Your task to perform on an android device: change the clock display to analog Image 0: 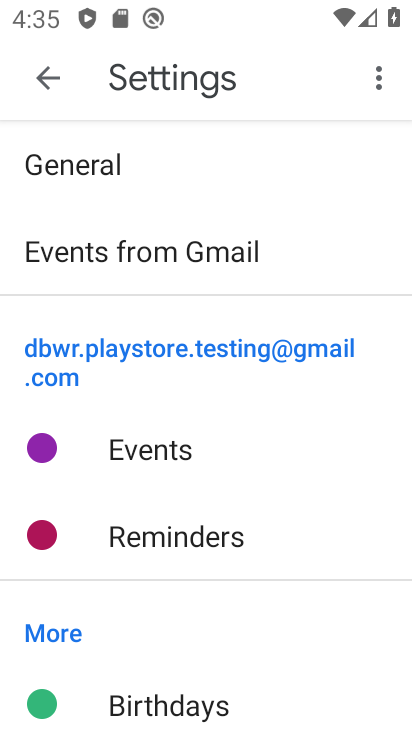
Step 0: press home button
Your task to perform on an android device: change the clock display to analog Image 1: 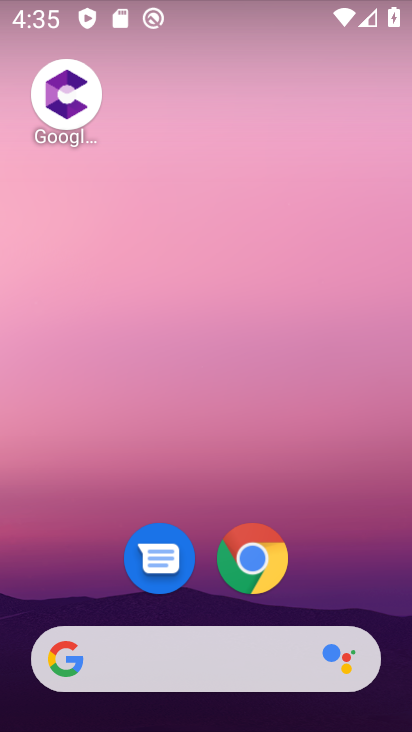
Step 1: drag from (402, 593) to (325, 81)
Your task to perform on an android device: change the clock display to analog Image 2: 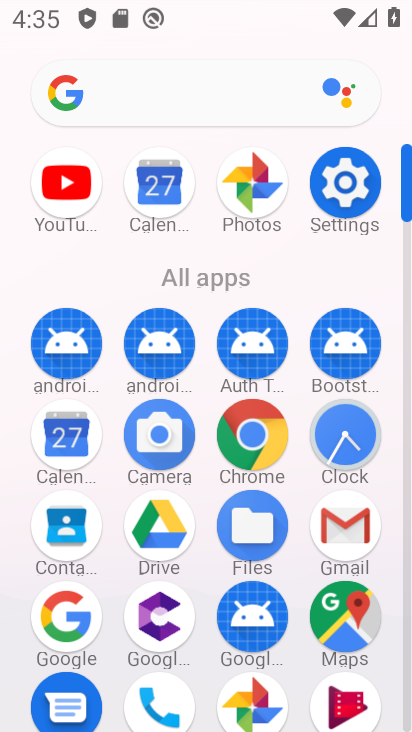
Step 2: click (354, 432)
Your task to perform on an android device: change the clock display to analog Image 3: 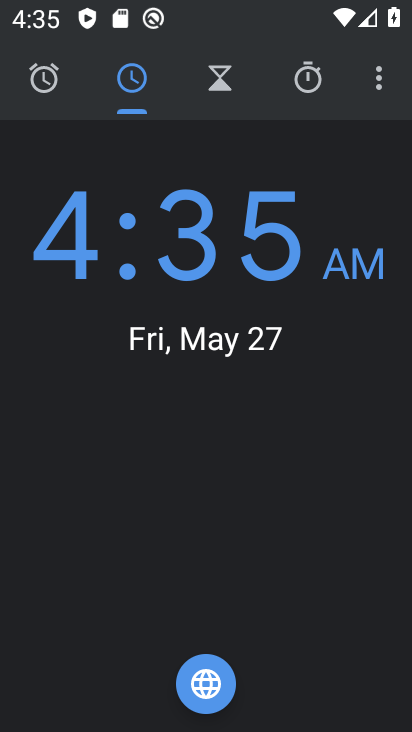
Step 3: click (382, 78)
Your task to perform on an android device: change the clock display to analog Image 4: 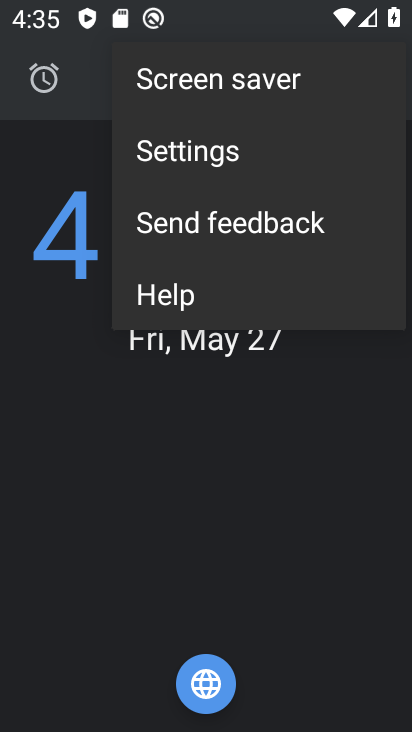
Step 4: click (318, 147)
Your task to perform on an android device: change the clock display to analog Image 5: 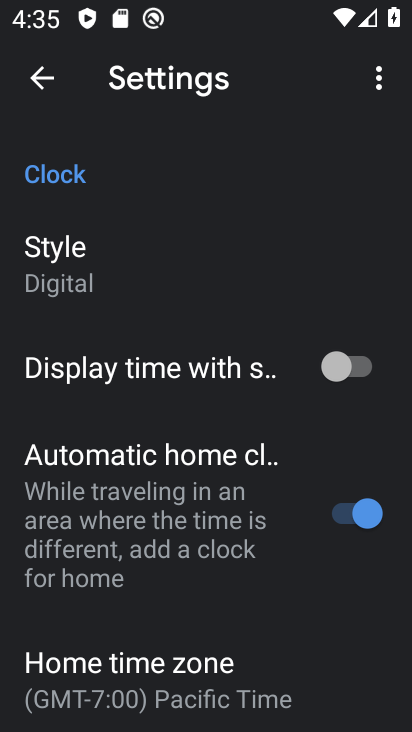
Step 5: click (160, 288)
Your task to perform on an android device: change the clock display to analog Image 6: 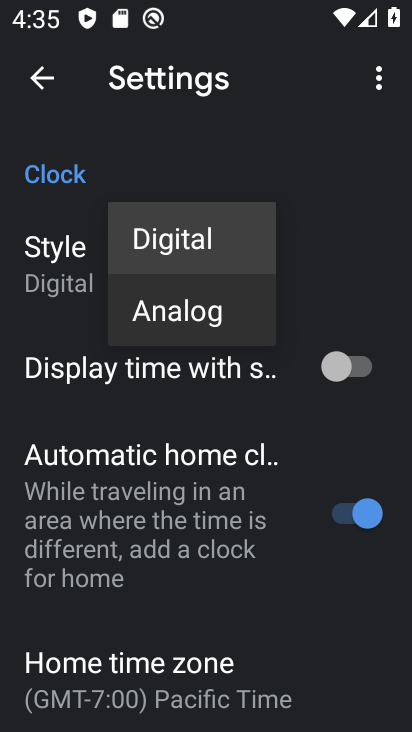
Step 6: click (170, 315)
Your task to perform on an android device: change the clock display to analog Image 7: 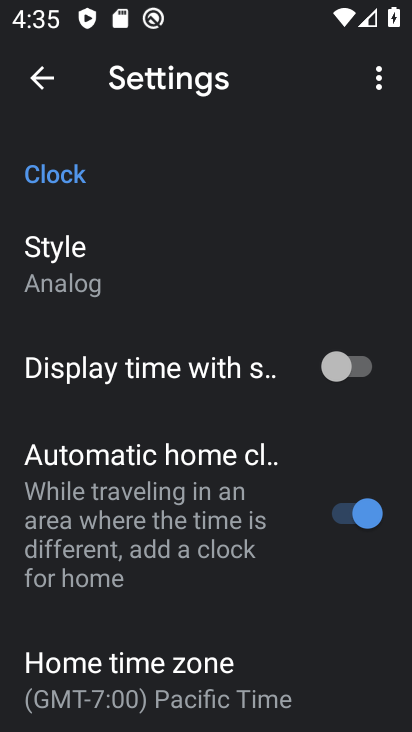
Step 7: task complete